Your task to perform on an android device: toggle notification dots Image 0: 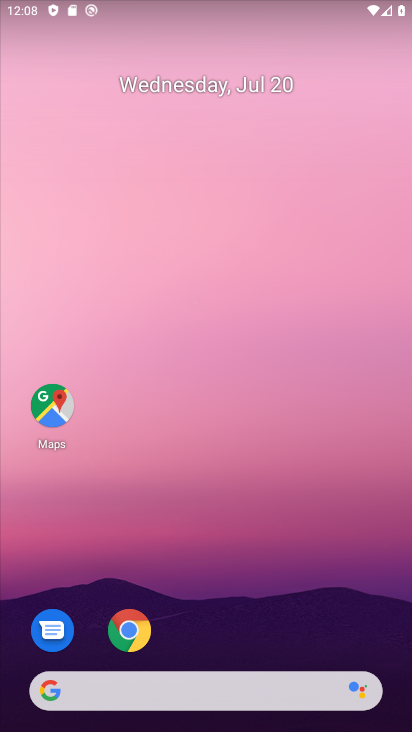
Step 0: drag from (59, 467) to (253, 82)
Your task to perform on an android device: toggle notification dots Image 1: 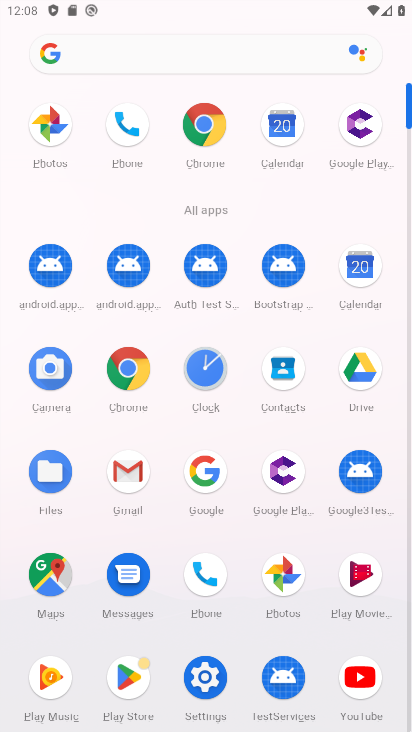
Step 1: click (202, 686)
Your task to perform on an android device: toggle notification dots Image 2: 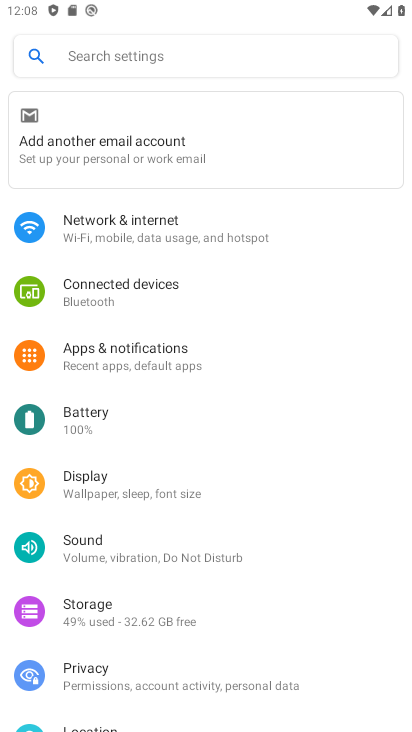
Step 2: click (163, 353)
Your task to perform on an android device: toggle notification dots Image 3: 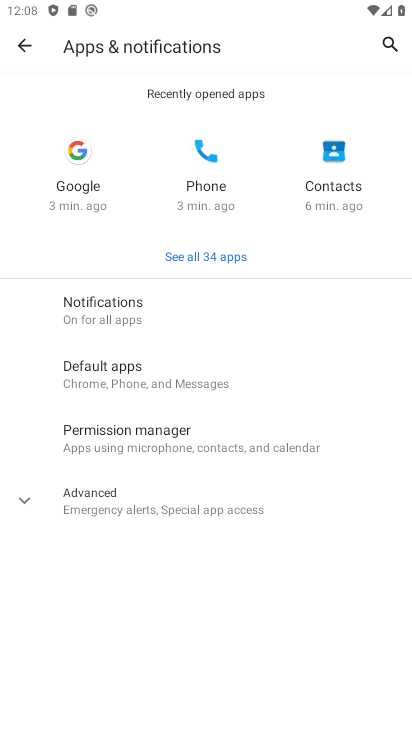
Step 3: click (159, 319)
Your task to perform on an android device: toggle notification dots Image 4: 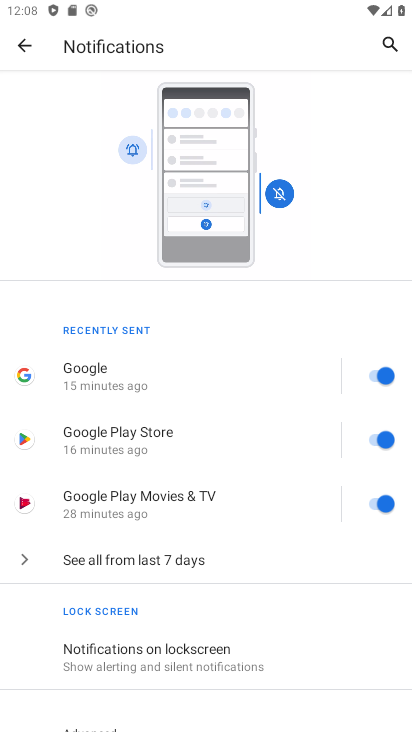
Step 4: drag from (16, 575) to (311, 62)
Your task to perform on an android device: toggle notification dots Image 5: 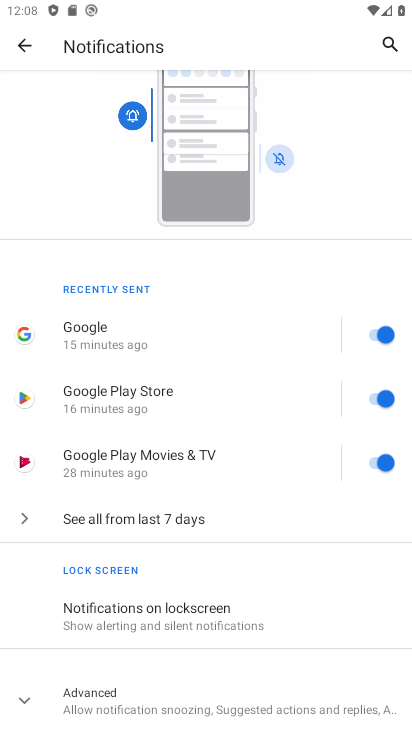
Step 5: click (165, 700)
Your task to perform on an android device: toggle notification dots Image 6: 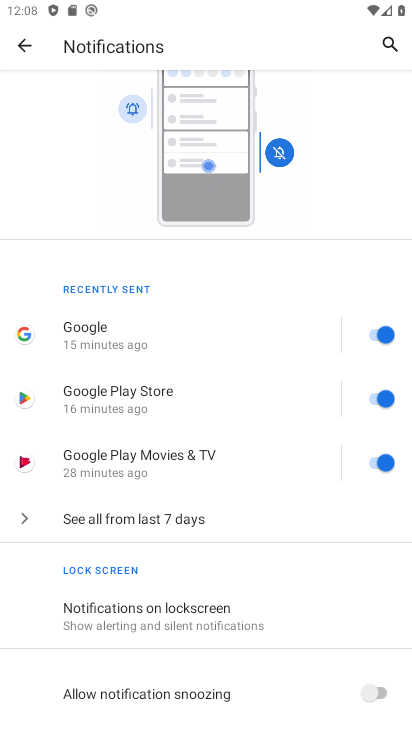
Step 6: drag from (15, 668) to (252, 215)
Your task to perform on an android device: toggle notification dots Image 7: 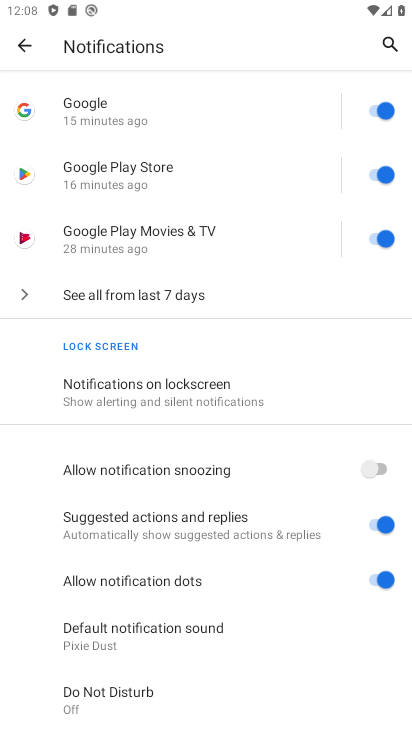
Step 7: click (394, 575)
Your task to perform on an android device: toggle notification dots Image 8: 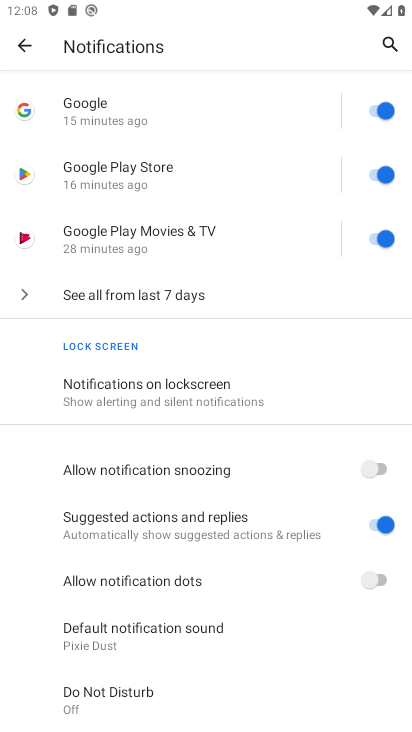
Step 8: task complete